Your task to perform on an android device: change the clock style Image 0: 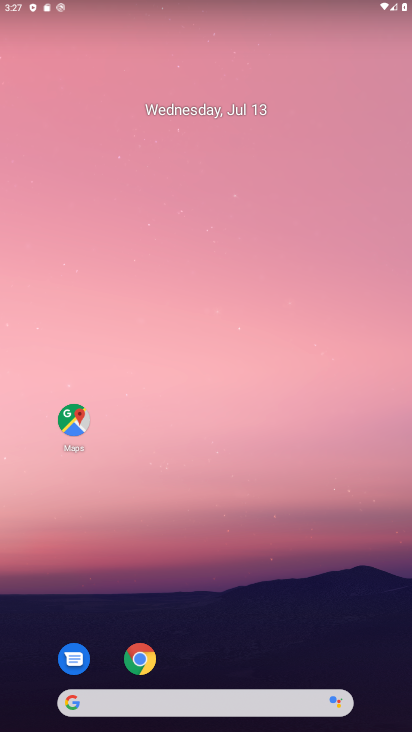
Step 0: press home button
Your task to perform on an android device: change the clock style Image 1: 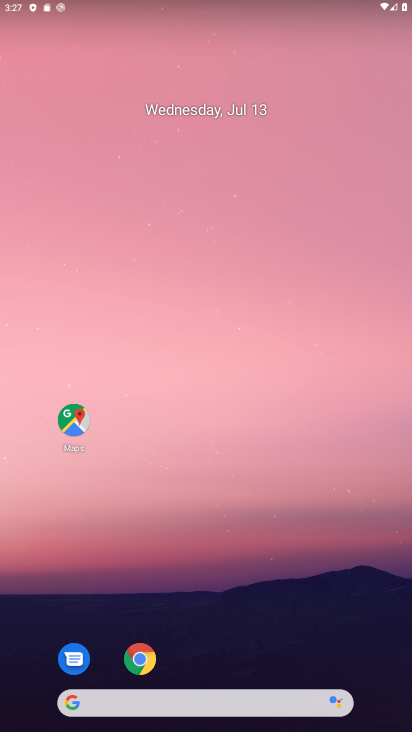
Step 1: drag from (240, 635) to (308, 177)
Your task to perform on an android device: change the clock style Image 2: 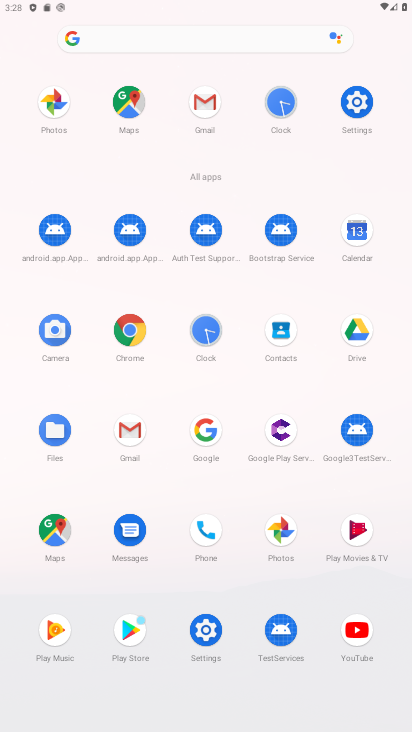
Step 2: click (279, 96)
Your task to perform on an android device: change the clock style Image 3: 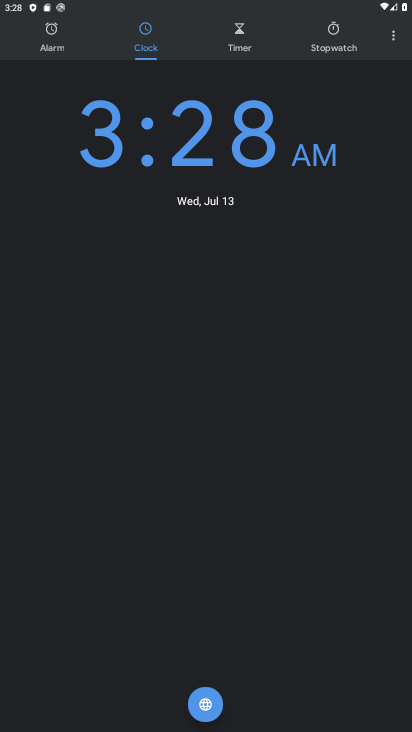
Step 3: click (396, 28)
Your task to perform on an android device: change the clock style Image 4: 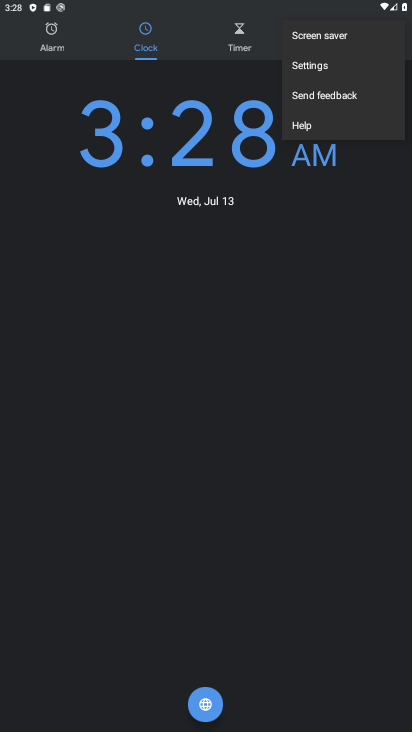
Step 4: click (335, 63)
Your task to perform on an android device: change the clock style Image 5: 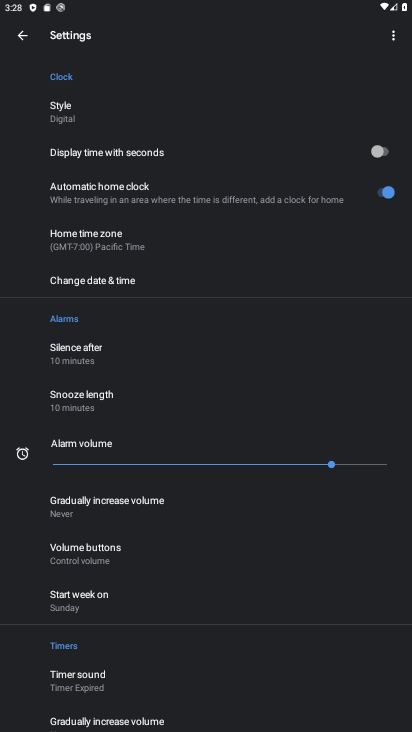
Step 5: click (101, 115)
Your task to perform on an android device: change the clock style Image 6: 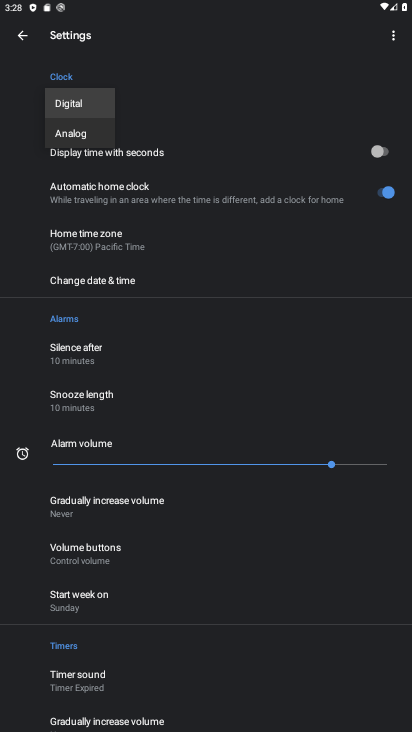
Step 6: click (91, 131)
Your task to perform on an android device: change the clock style Image 7: 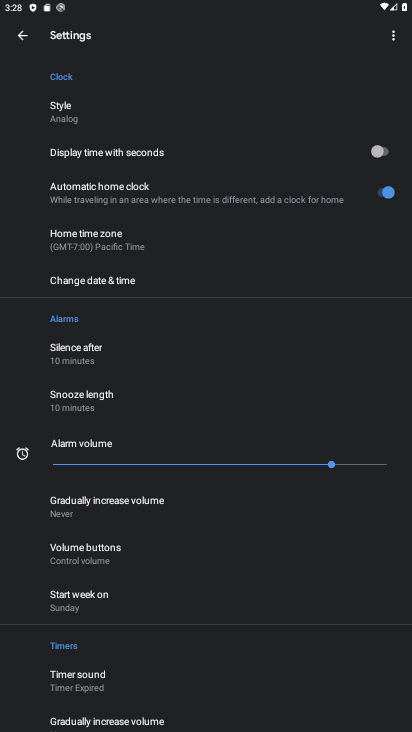
Step 7: task complete